Your task to perform on an android device: Go to network settings Image 0: 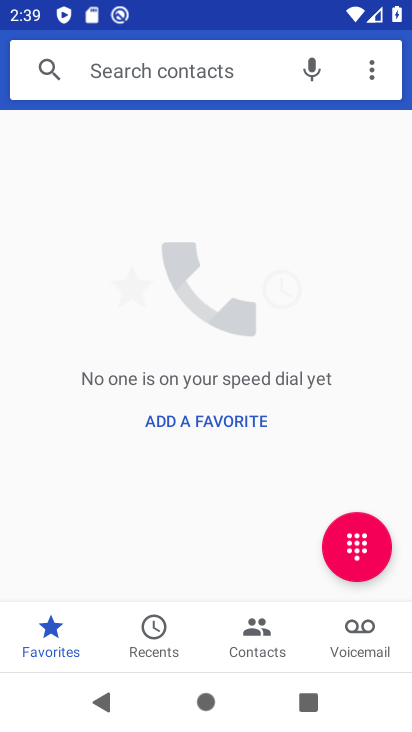
Step 0: press home button
Your task to perform on an android device: Go to network settings Image 1: 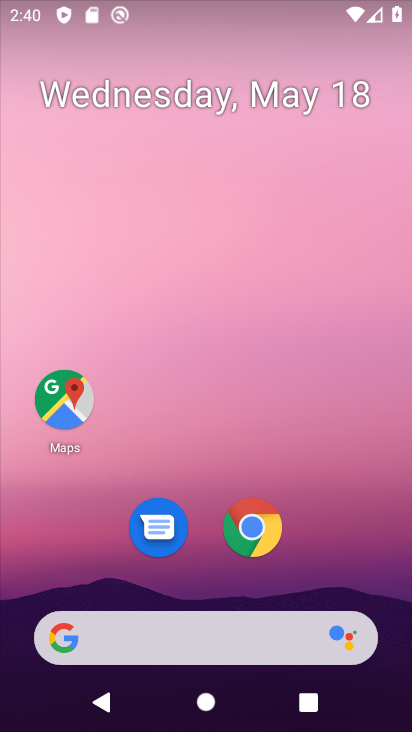
Step 1: drag from (226, 619) to (209, 4)
Your task to perform on an android device: Go to network settings Image 2: 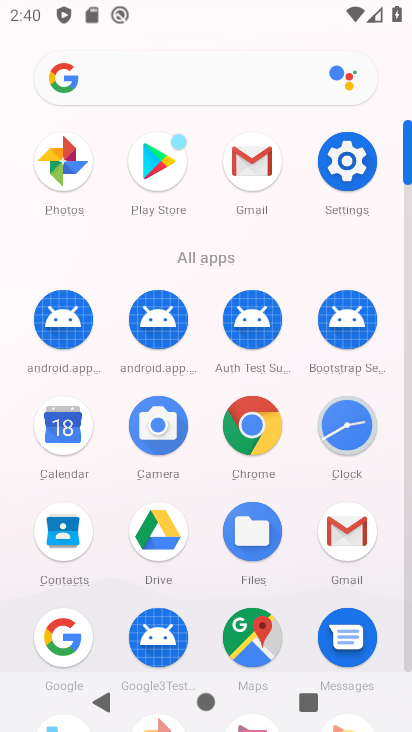
Step 2: click (350, 168)
Your task to perform on an android device: Go to network settings Image 3: 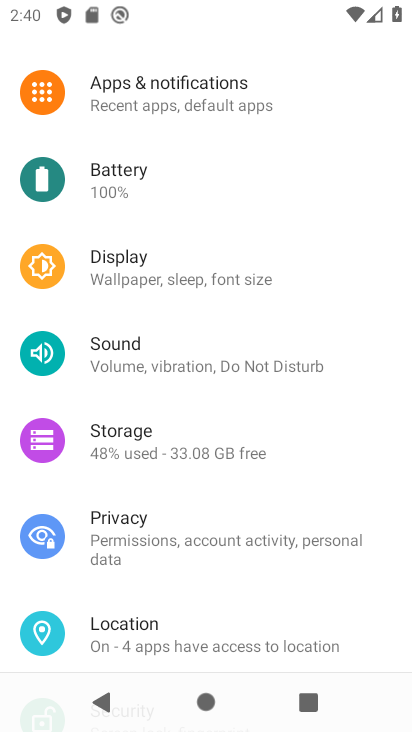
Step 3: drag from (299, 228) to (259, 693)
Your task to perform on an android device: Go to network settings Image 4: 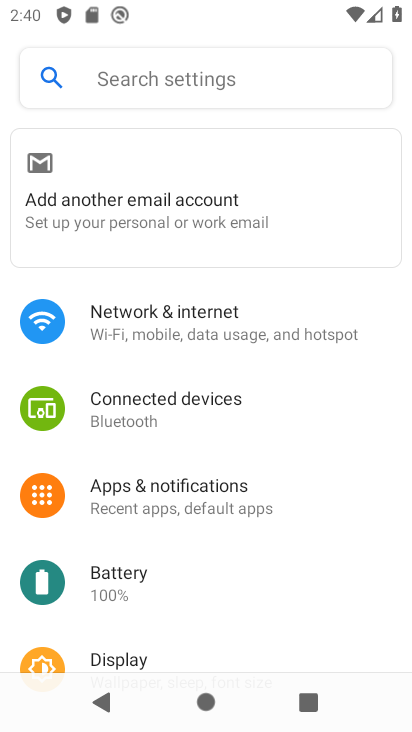
Step 4: click (181, 340)
Your task to perform on an android device: Go to network settings Image 5: 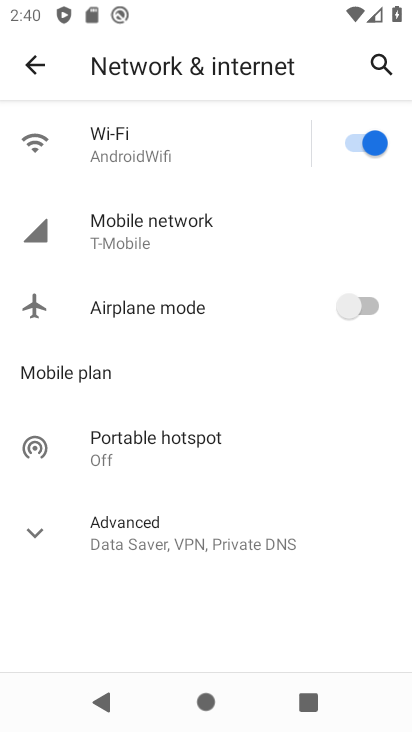
Step 5: click (98, 232)
Your task to perform on an android device: Go to network settings Image 6: 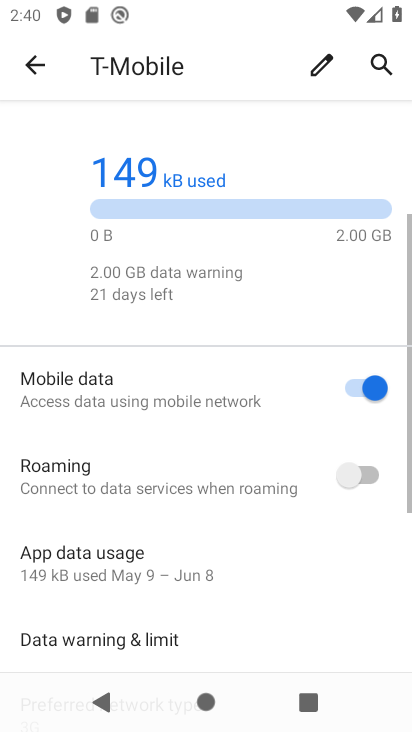
Step 6: task complete